Your task to perform on an android device: Go to CNN.com Image 0: 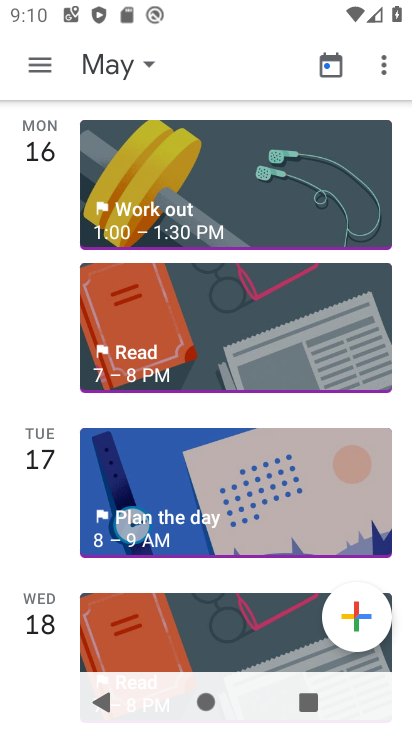
Step 0: press home button
Your task to perform on an android device: Go to CNN.com Image 1: 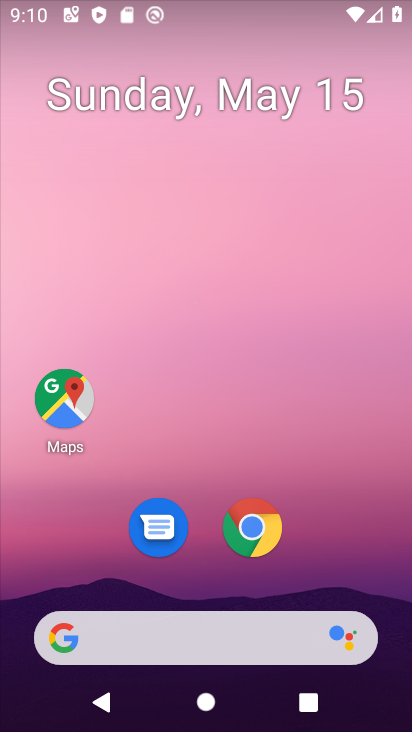
Step 1: click (266, 513)
Your task to perform on an android device: Go to CNN.com Image 2: 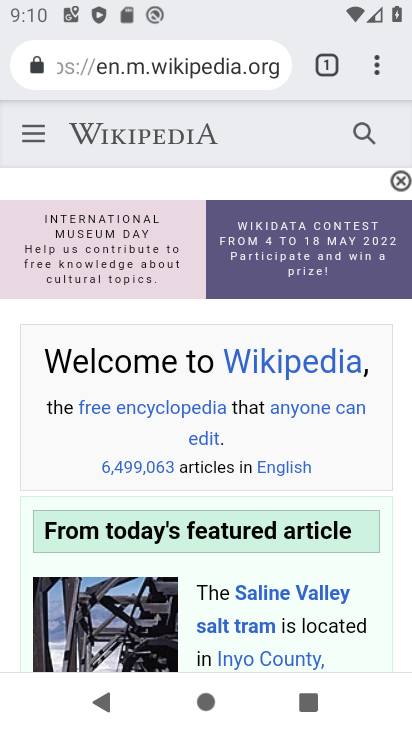
Step 2: click (330, 63)
Your task to perform on an android device: Go to CNN.com Image 3: 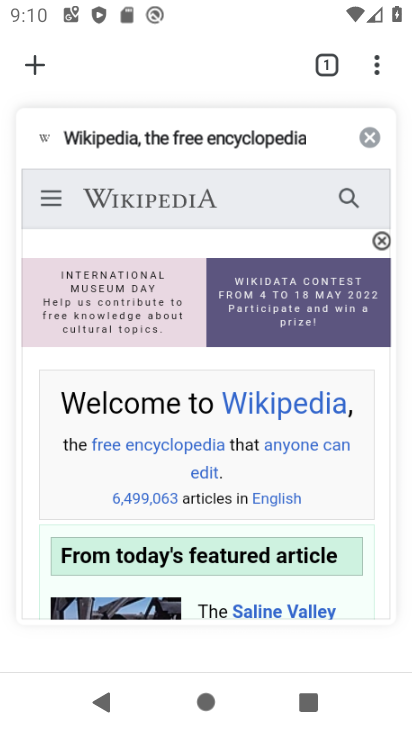
Step 3: click (46, 63)
Your task to perform on an android device: Go to CNN.com Image 4: 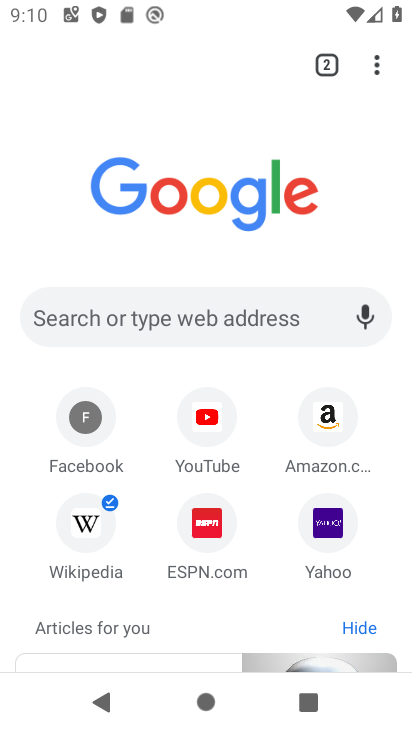
Step 4: click (263, 309)
Your task to perform on an android device: Go to CNN.com Image 5: 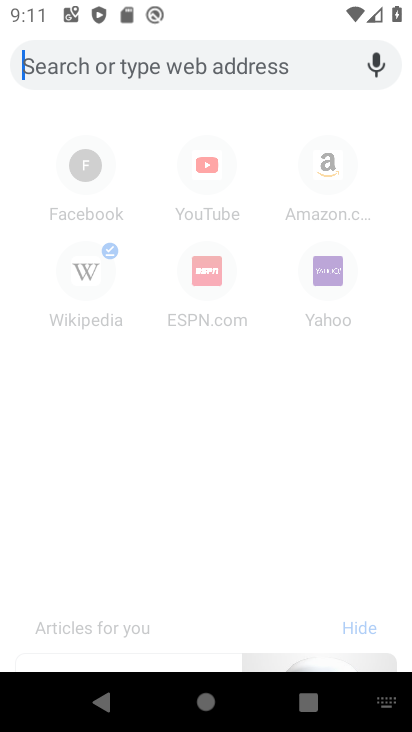
Step 5: type "cnn.com"
Your task to perform on an android device: Go to CNN.com Image 6: 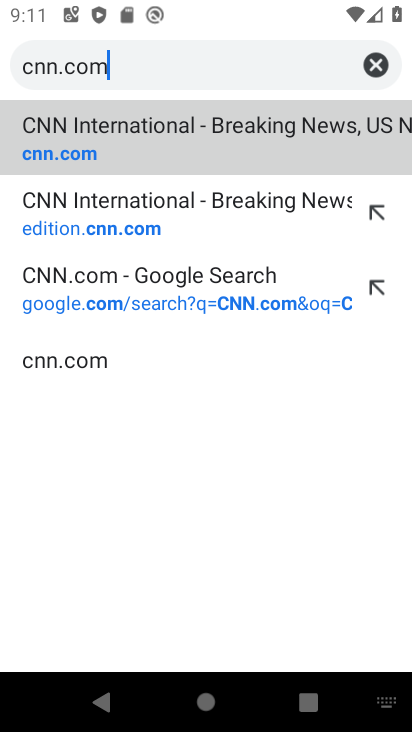
Step 6: click (82, 149)
Your task to perform on an android device: Go to CNN.com Image 7: 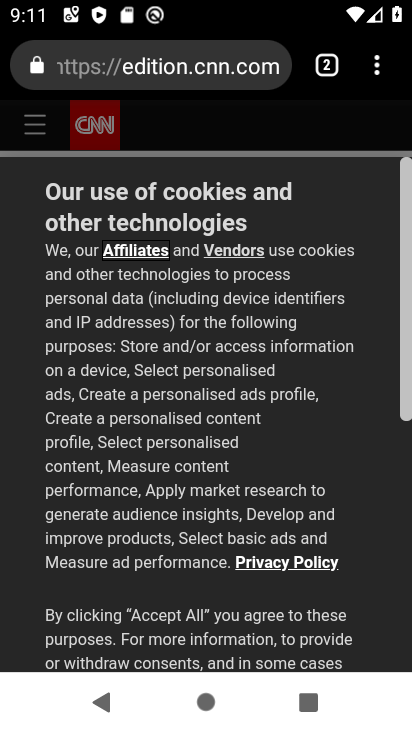
Step 7: task complete